Your task to perform on an android device: Search for seafood restaurants on Google Maps Image 0: 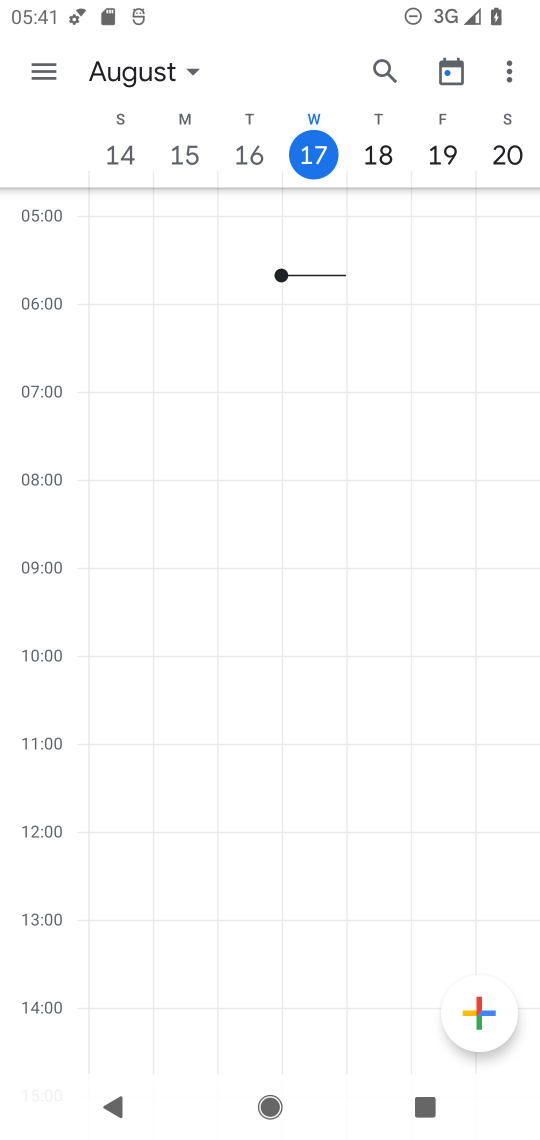
Step 0: press home button
Your task to perform on an android device: Search for seafood restaurants on Google Maps Image 1: 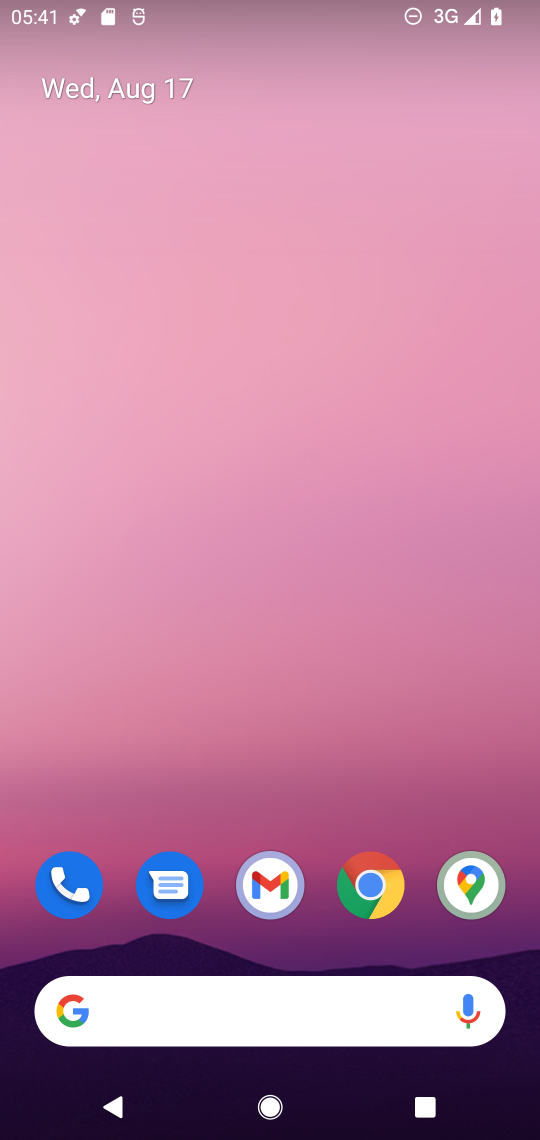
Step 1: drag from (431, 853) to (443, 156)
Your task to perform on an android device: Search for seafood restaurants on Google Maps Image 2: 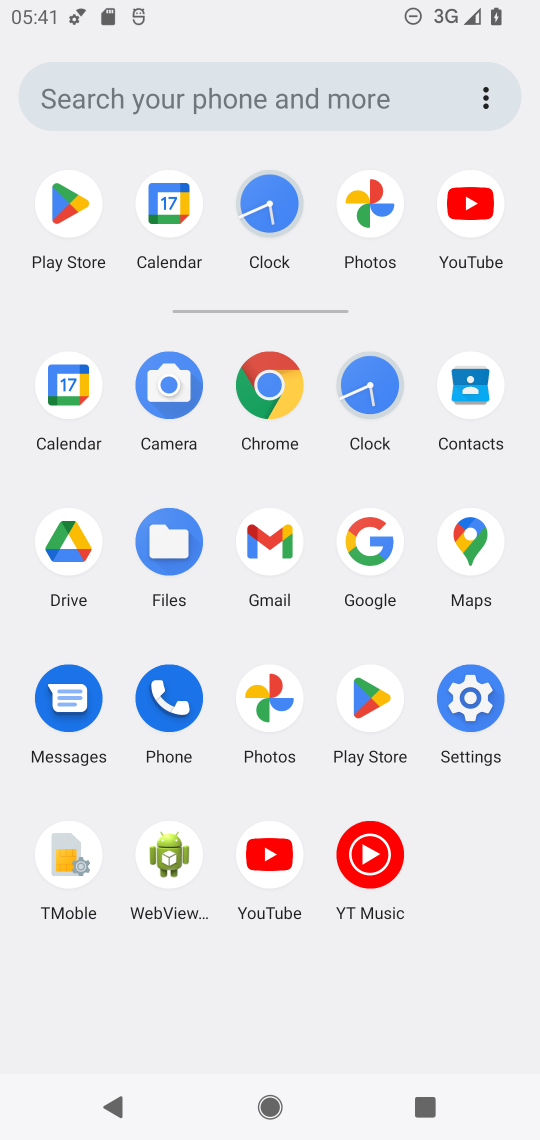
Step 2: click (476, 545)
Your task to perform on an android device: Search for seafood restaurants on Google Maps Image 3: 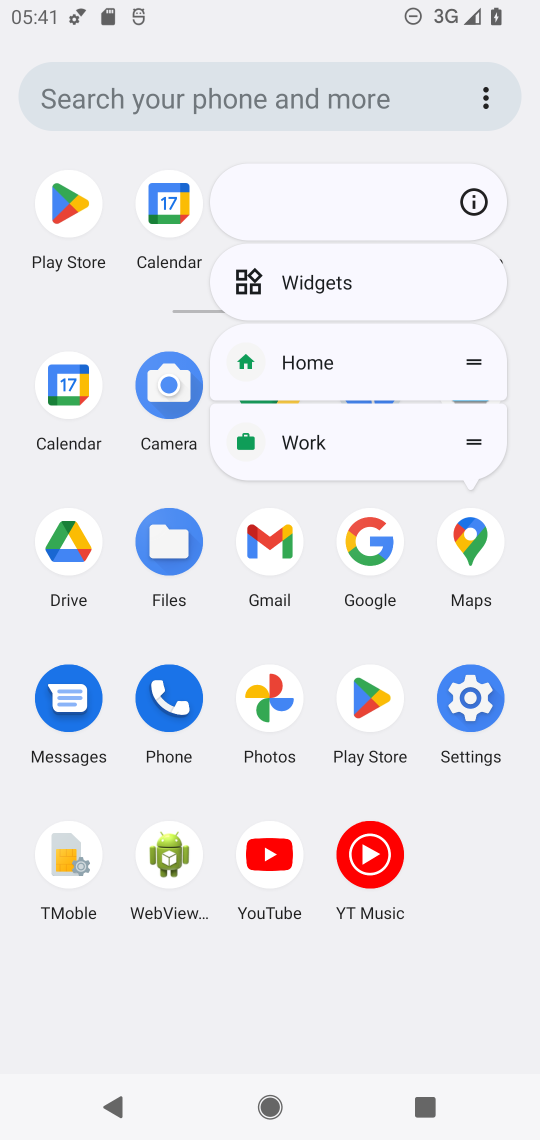
Step 3: click (455, 540)
Your task to perform on an android device: Search for seafood restaurants on Google Maps Image 4: 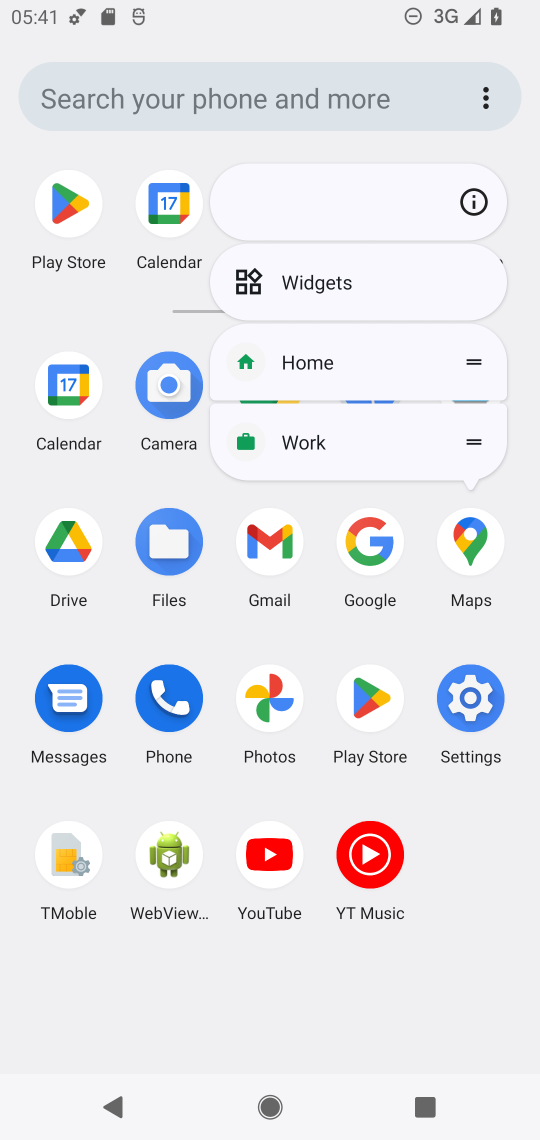
Step 4: click (460, 539)
Your task to perform on an android device: Search for seafood restaurants on Google Maps Image 5: 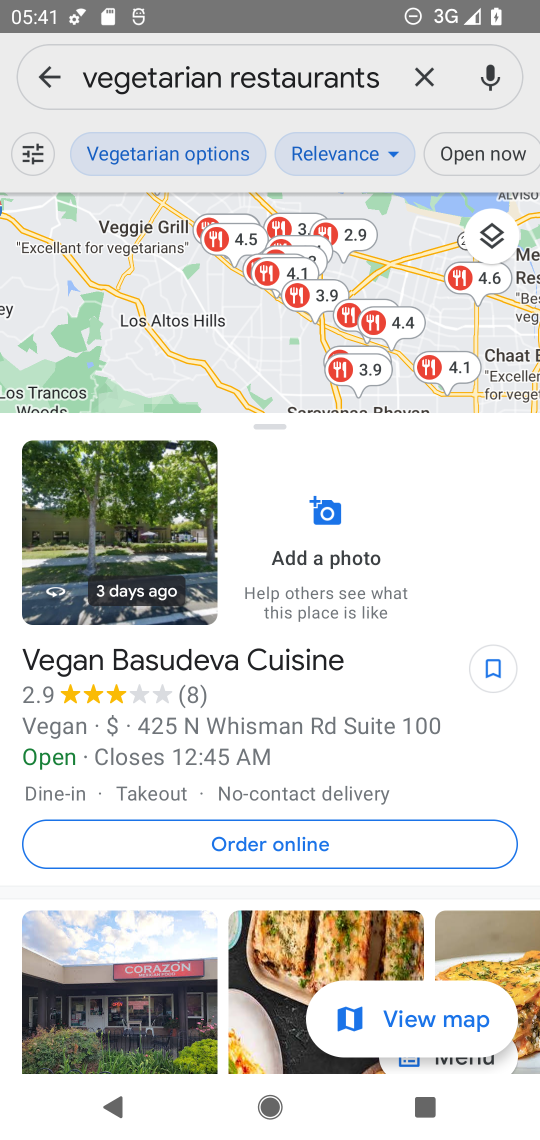
Step 5: click (432, 69)
Your task to perform on an android device: Search for seafood restaurants on Google Maps Image 6: 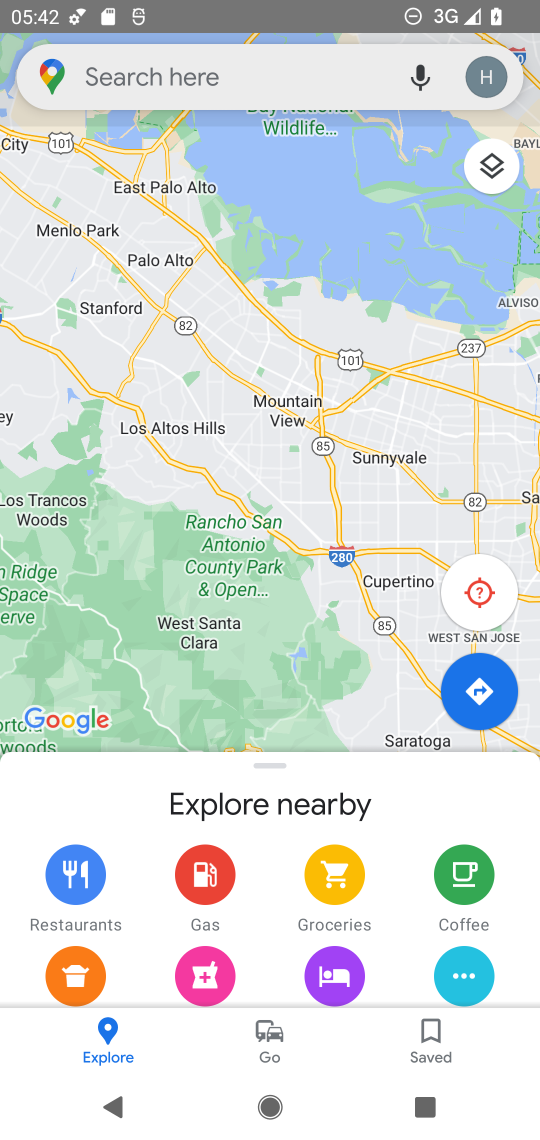
Step 6: click (355, 75)
Your task to perform on an android device: Search for seafood restaurants on Google Maps Image 7: 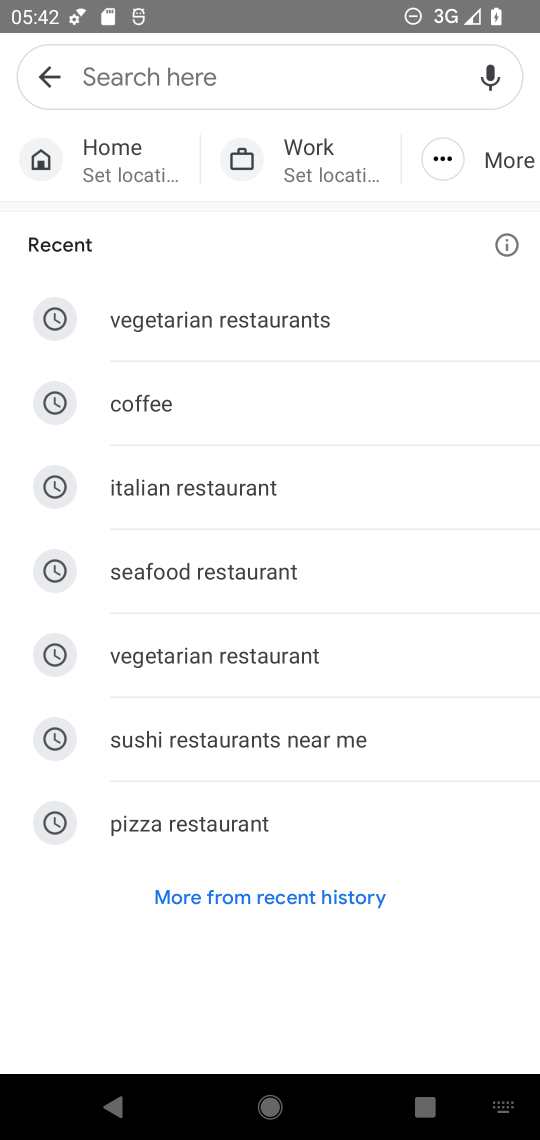
Step 7: type "seafood restaurants"
Your task to perform on an android device: Search for seafood restaurants on Google Maps Image 8: 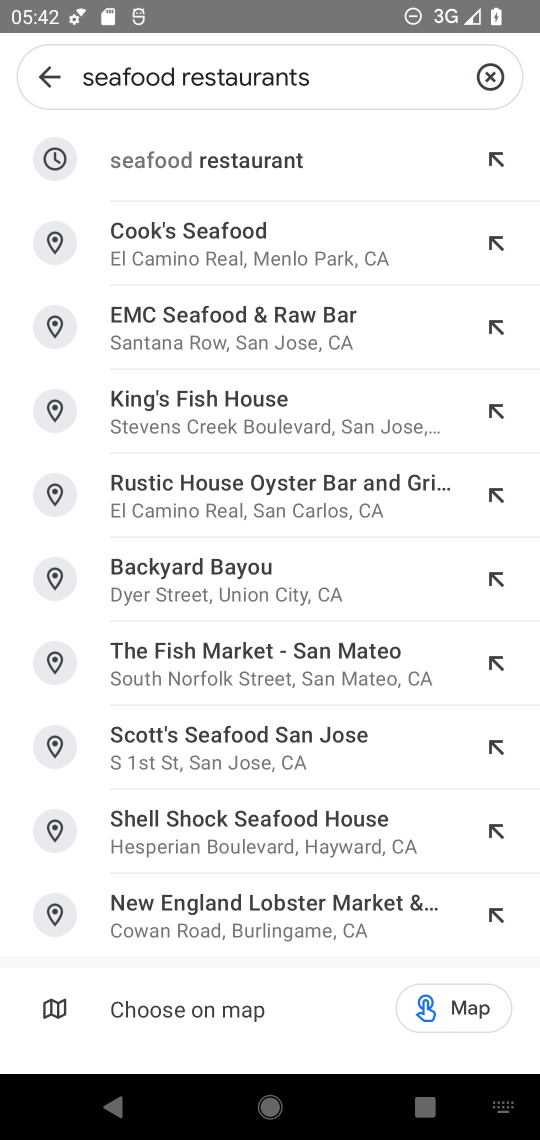
Step 8: press enter
Your task to perform on an android device: Search for seafood restaurants on Google Maps Image 9: 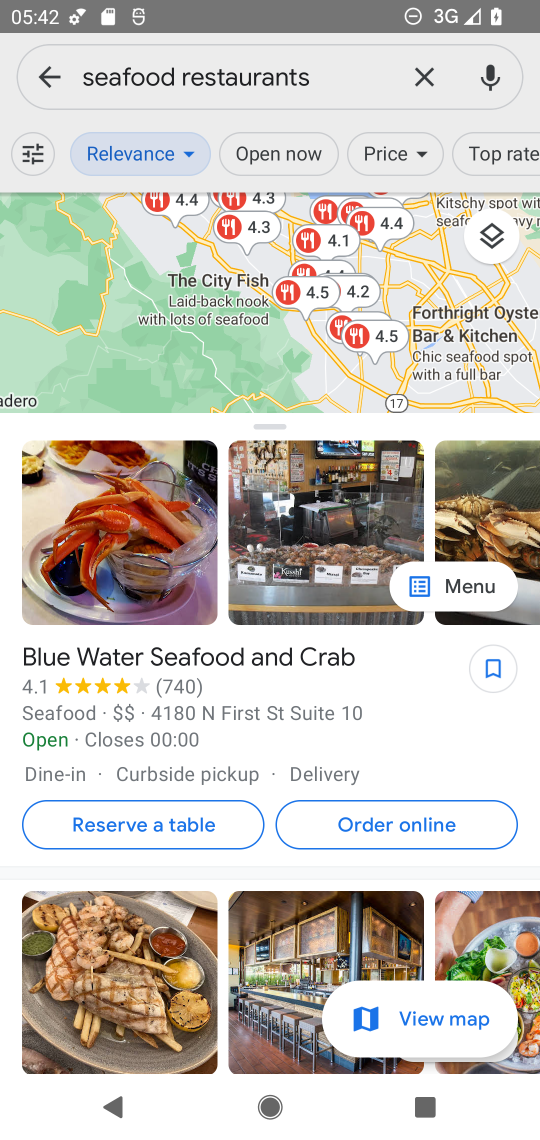
Step 9: task complete